Your task to perform on an android device: change notification settings in the gmail app Image 0: 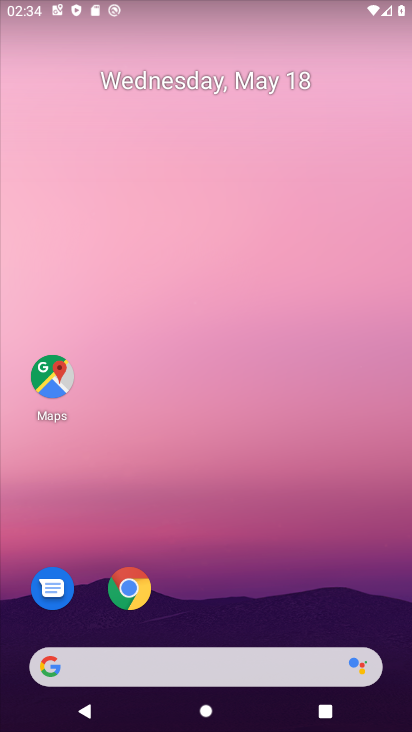
Step 0: drag from (68, 555) to (278, 130)
Your task to perform on an android device: change notification settings in the gmail app Image 1: 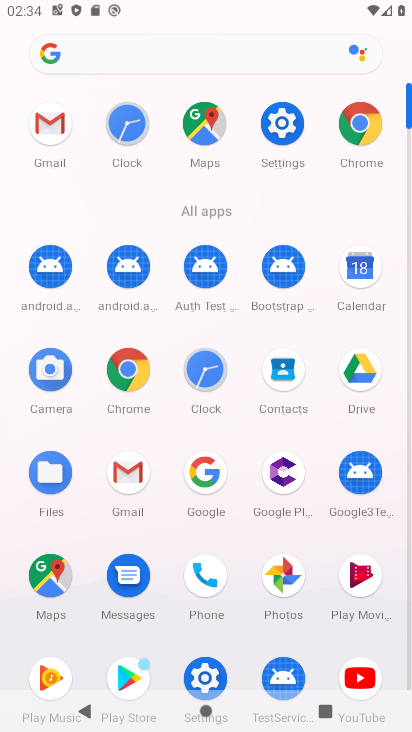
Step 1: click (50, 131)
Your task to perform on an android device: change notification settings in the gmail app Image 2: 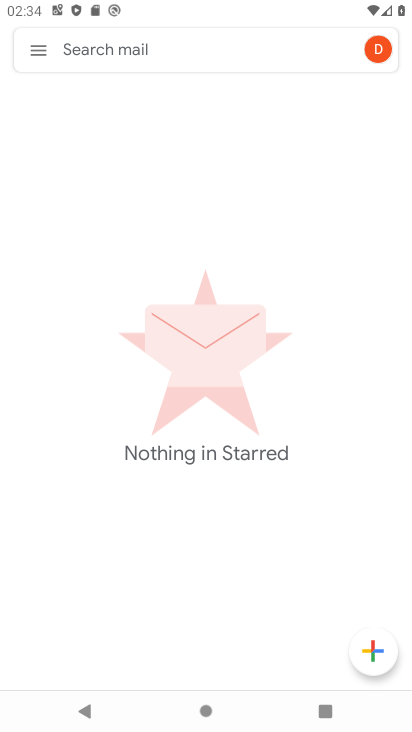
Step 2: click (45, 54)
Your task to perform on an android device: change notification settings in the gmail app Image 3: 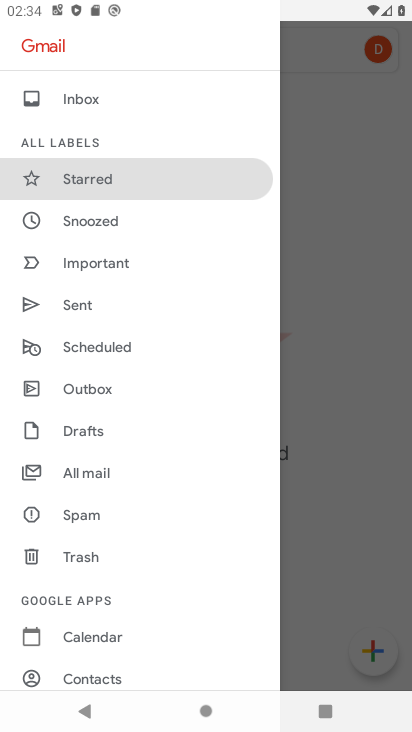
Step 3: drag from (114, 653) to (223, 106)
Your task to perform on an android device: change notification settings in the gmail app Image 4: 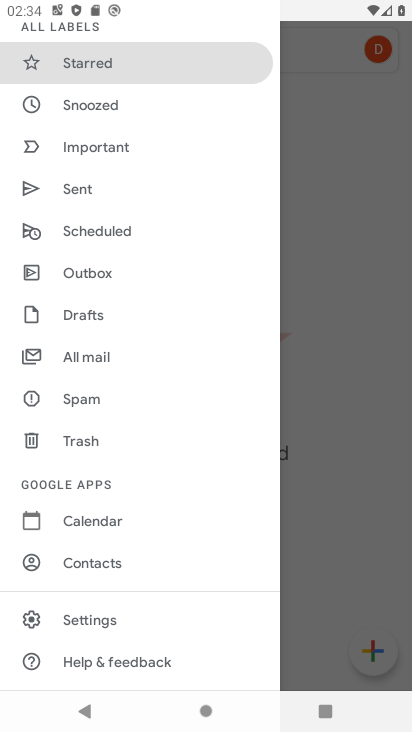
Step 4: click (96, 620)
Your task to perform on an android device: change notification settings in the gmail app Image 5: 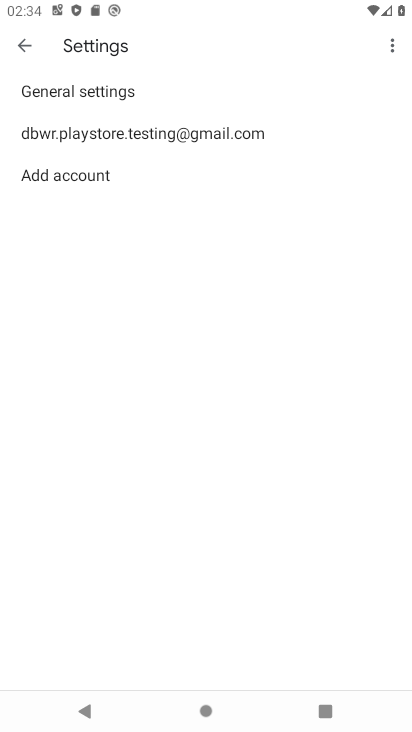
Step 5: click (147, 134)
Your task to perform on an android device: change notification settings in the gmail app Image 6: 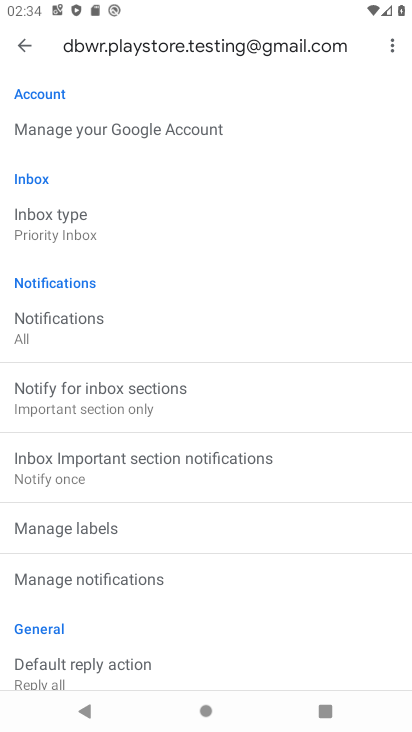
Step 6: click (143, 582)
Your task to perform on an android device: change notification settings in the gmail app Image 7: 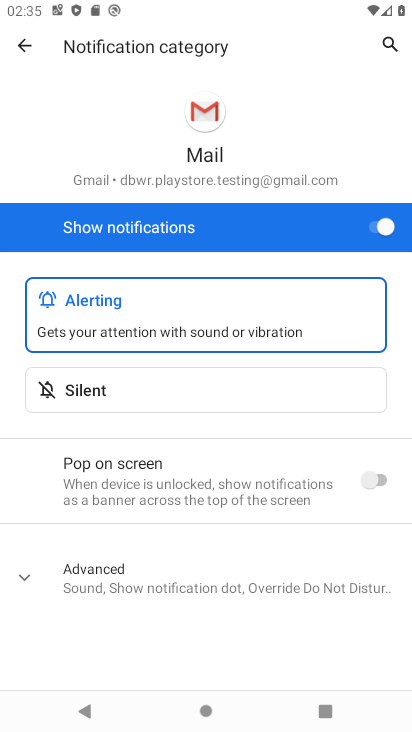
Step 7: click (143, 577)
Your task to perform on an android device: change notification settings in the gmail app Image 8: 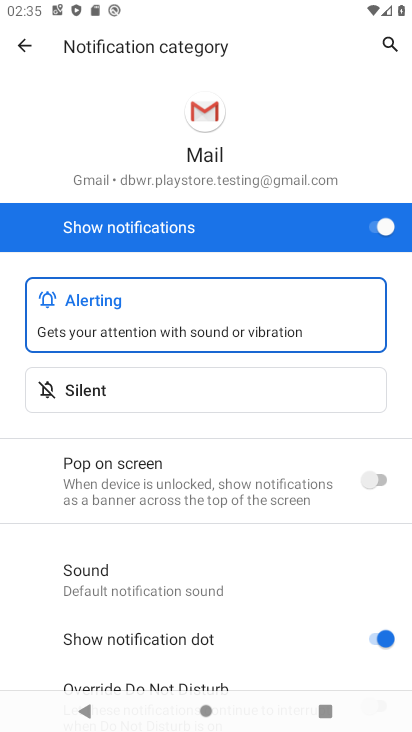
Step 8: click (377, 230)
Your task to perform on an android device: change notification settings in the gmail app Image 9: 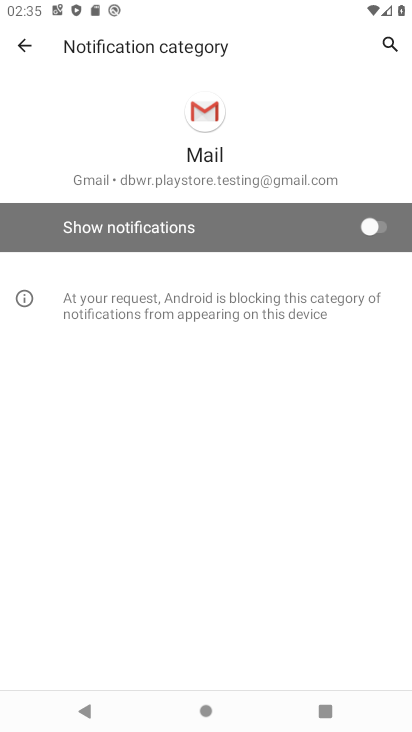
Step 9: task complete